Your task to perform on an android device: Play the last video I watched on Youtube Image 0: 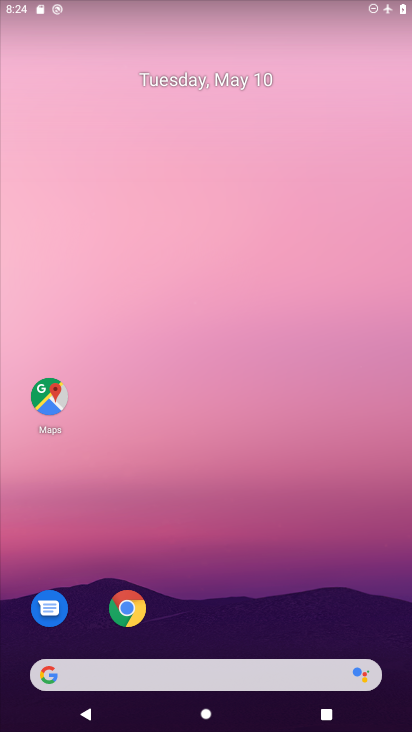
Step 0: drag from (249, 635) to (298, 320)
Your task to perform on an android device: Play the last video I watched on Youtube Image 1: 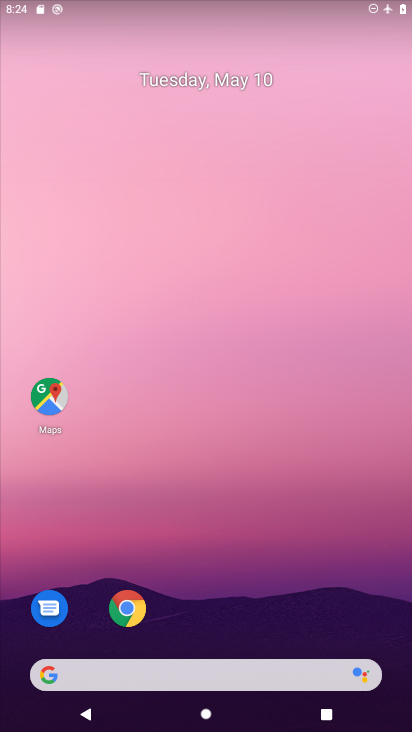
Step 1: drag from (262, 636) to (256, 279)
Your task to perform on an android device: Play the last video I watched on Youtube Image 2: 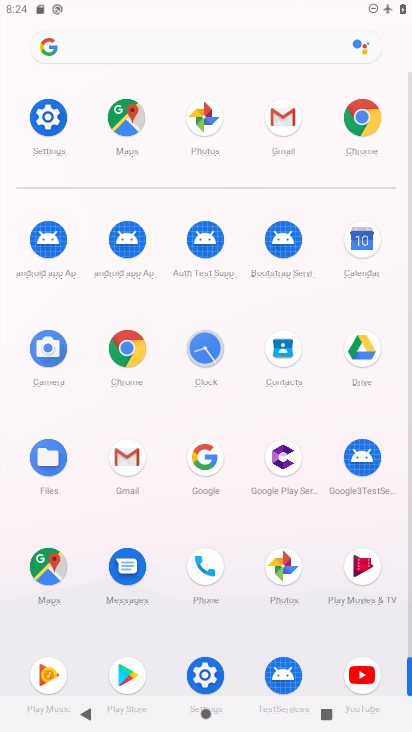
Step 2: click (357, 681)
Your task to perform on an android device: Play the last video I watched on Youtube Image 3: 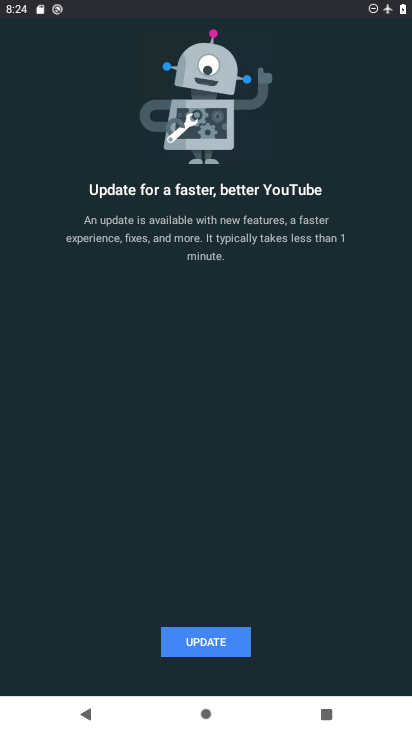
Step 3: task complete